Your task to perform on an android device: Open notification settings Image 0: 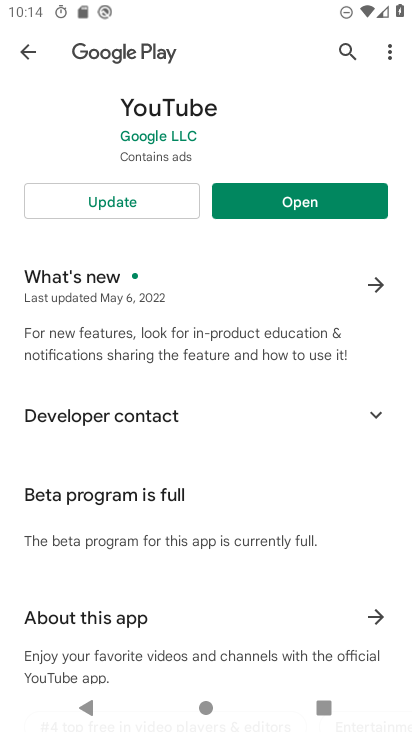
Step 0: click (35, 56)
Your task to perform on an android device: Open notification settings Image 1: 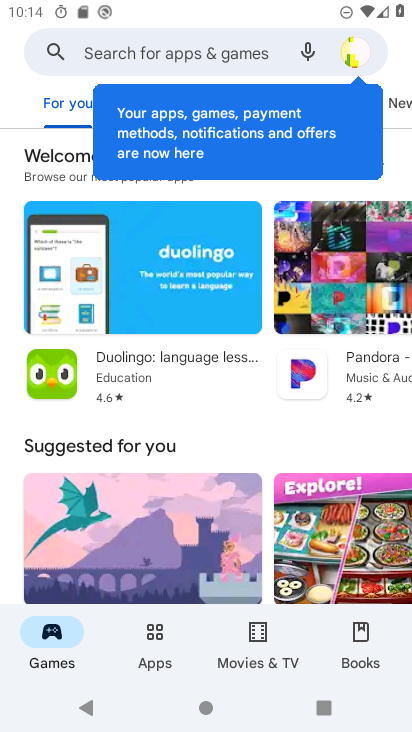
Step 1: press home button
Your task to perform on an android device: Open notification settings Image 2: 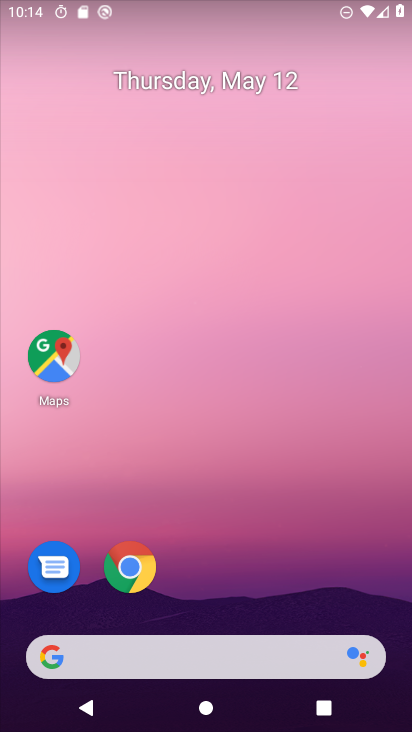
Step 2: drag from (250, 624) to (301, 180)
Your task to perform on an android device: Open notification settings Image 3: 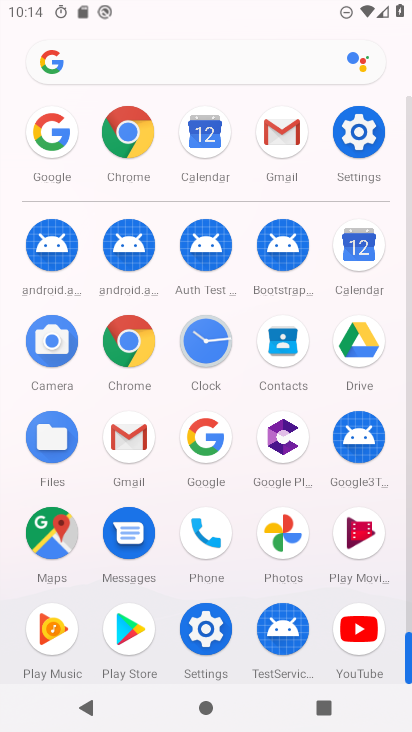
Step 3: click (367, 154)
Your task to perform on an android device: Open notification settings Image 4: 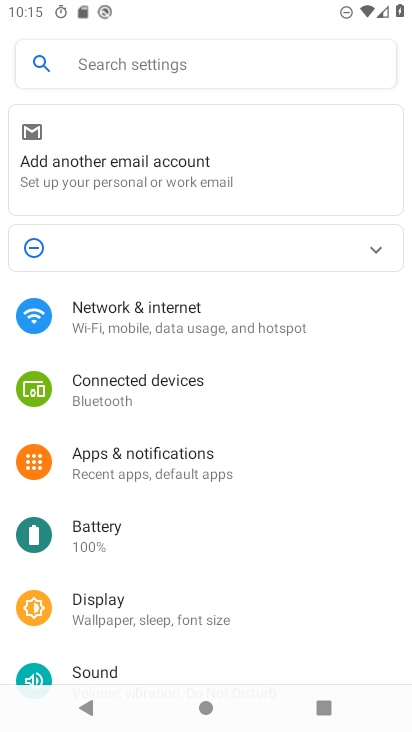
Step 4: click (206, 462)
Your task to perform on an android device: Open notification settings Image 5: 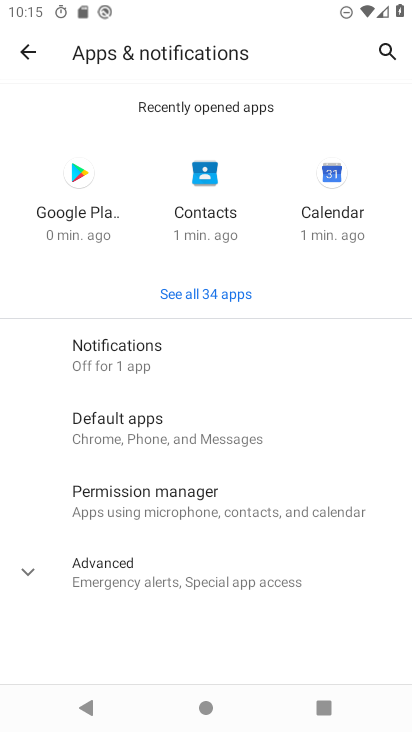
Step 5: click (226, 359)
Your task to perform on an android device: Open notification settings Image 6: 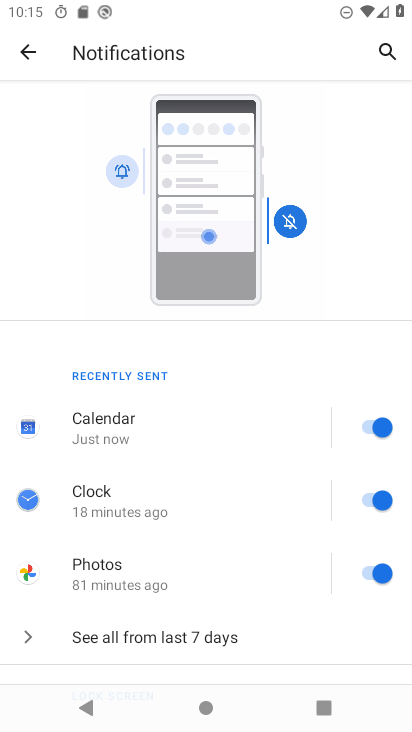
Step 6: task complete